Your task to perform on an android device: Is it going to rain tomorrow? Image 0: 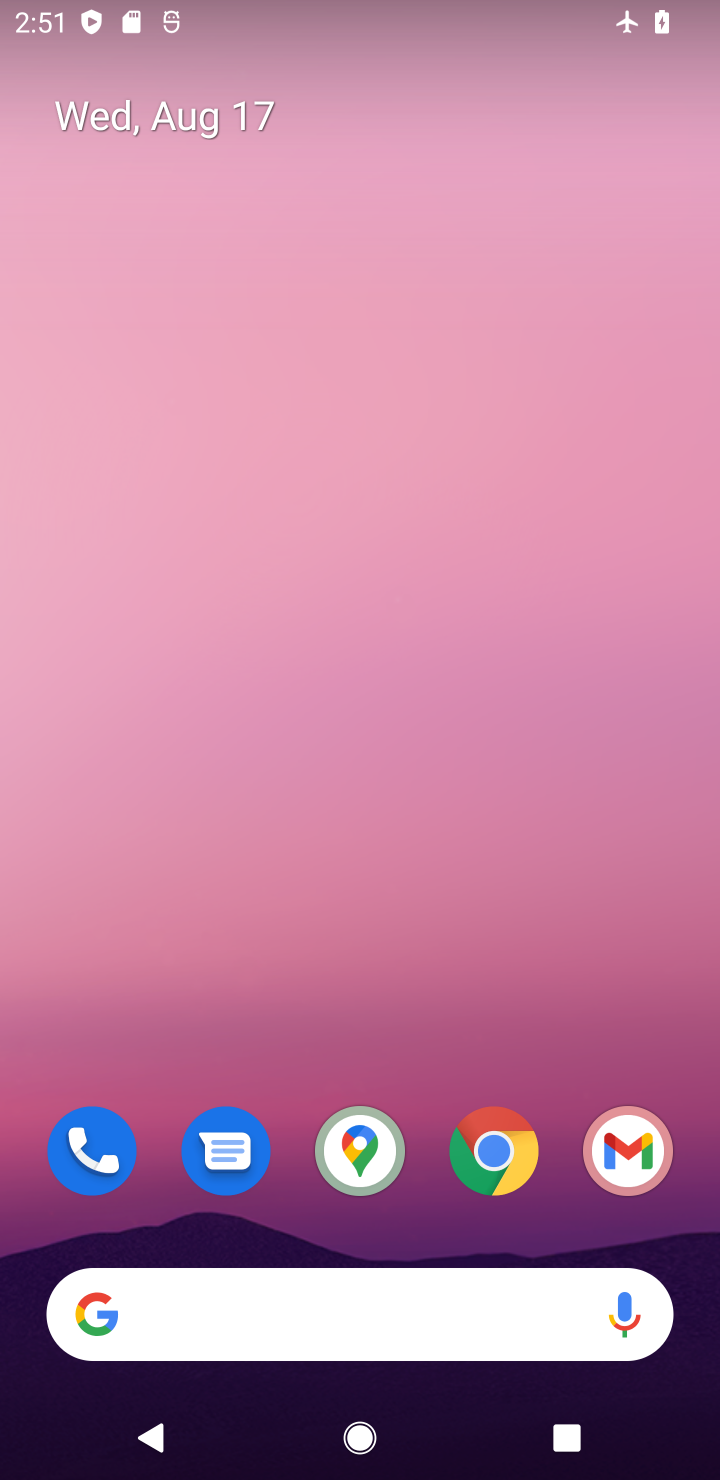
Step 0: drag from (288, 1031) to (345, 408)
Your task to perform on an android device: Is it going to rain tomorrow? Image 1: 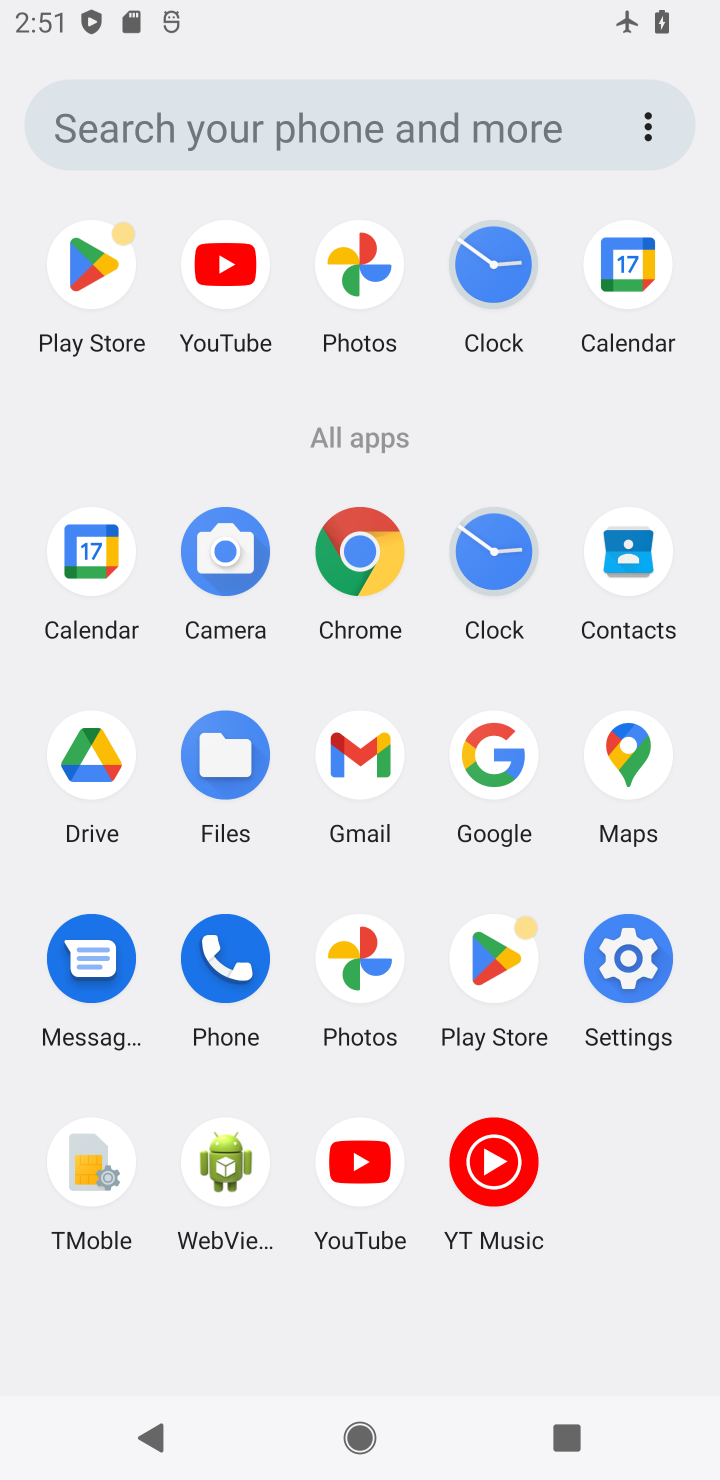
Step 1: click (353, 552)
Your task to perform on an android device: Is it going to rain tomorrow? Image 2: 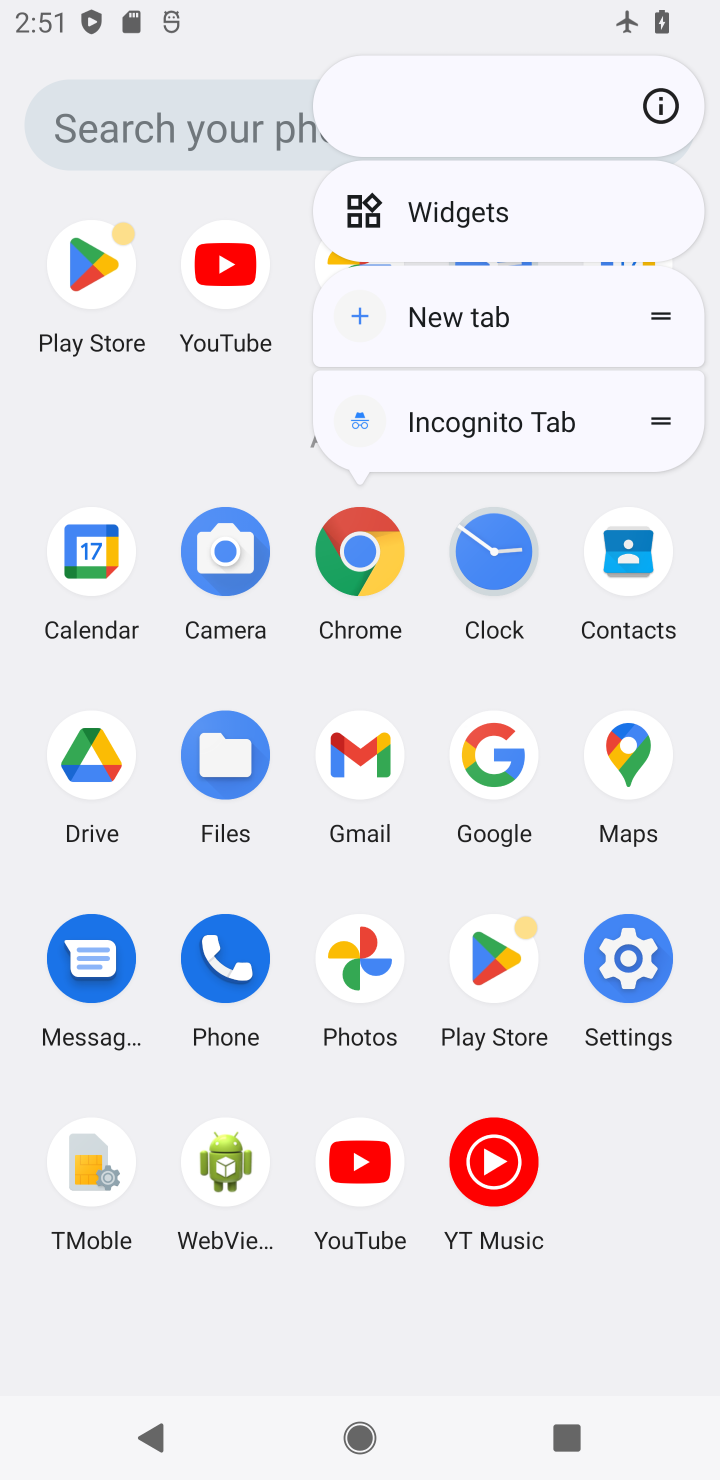
Step 2: click (353, 552)
Your task to perform on an android device: Is it going to rain tomorrow? Image 3: 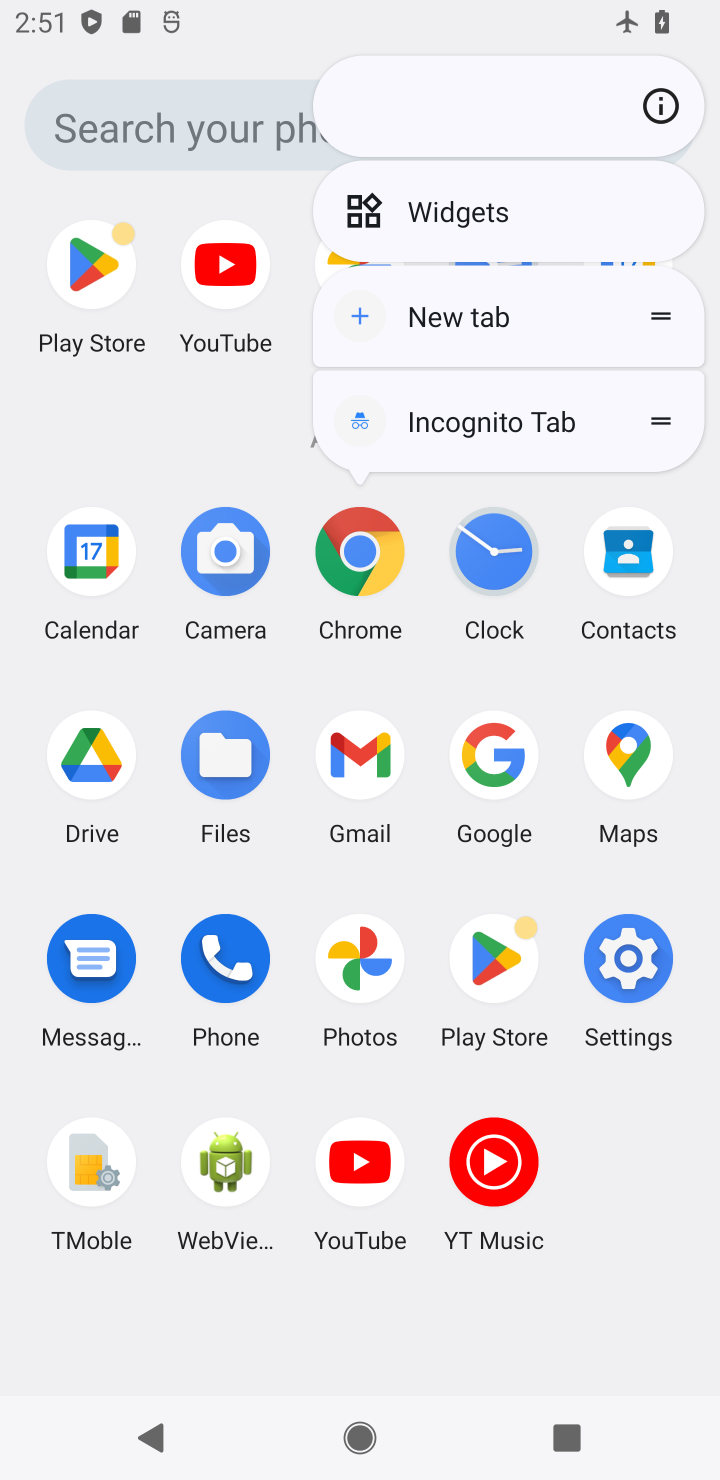
Step 3: click (353, 552)
Your task to perform on an android device: Is it going to rain tomorrow? Image 4: 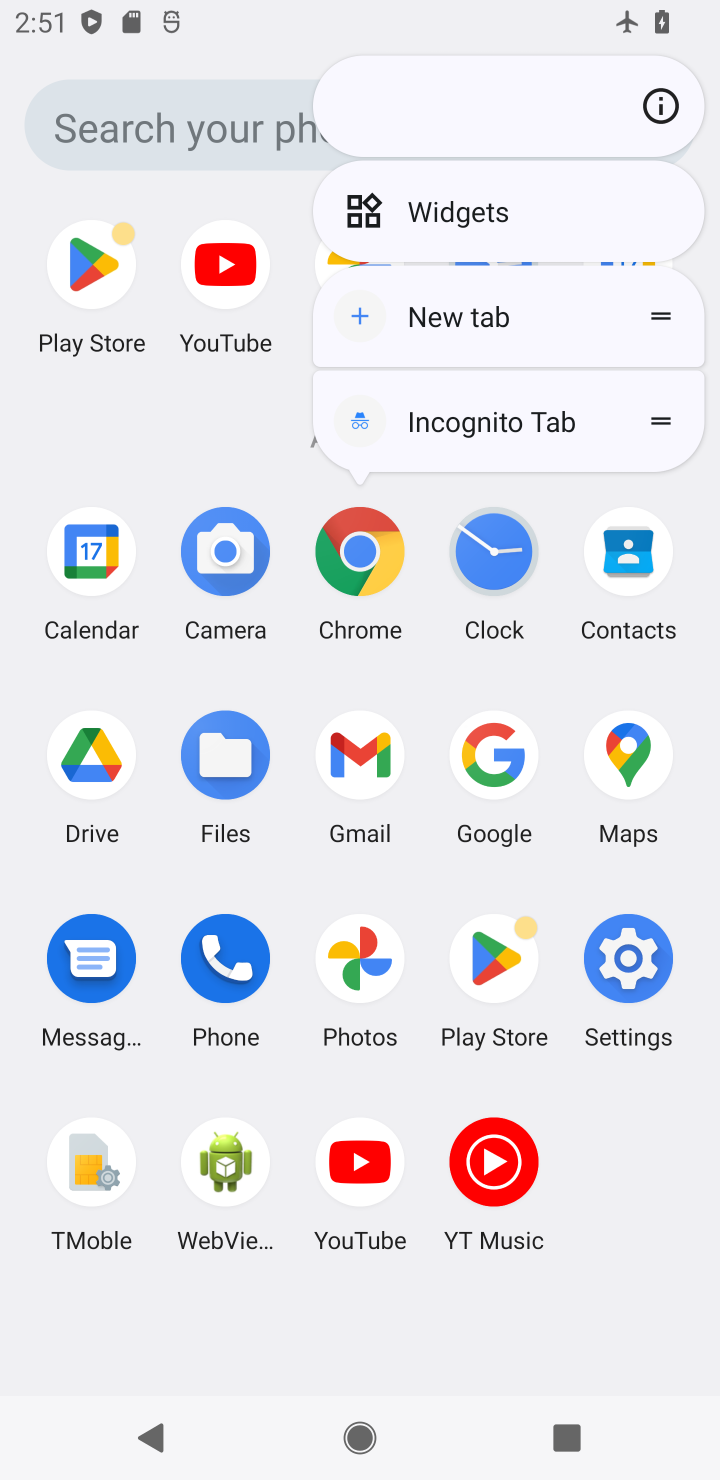
Step 4: click (357, 581)
Your task to perform on an android device: Is it going to rain tomorrow? Image 5: 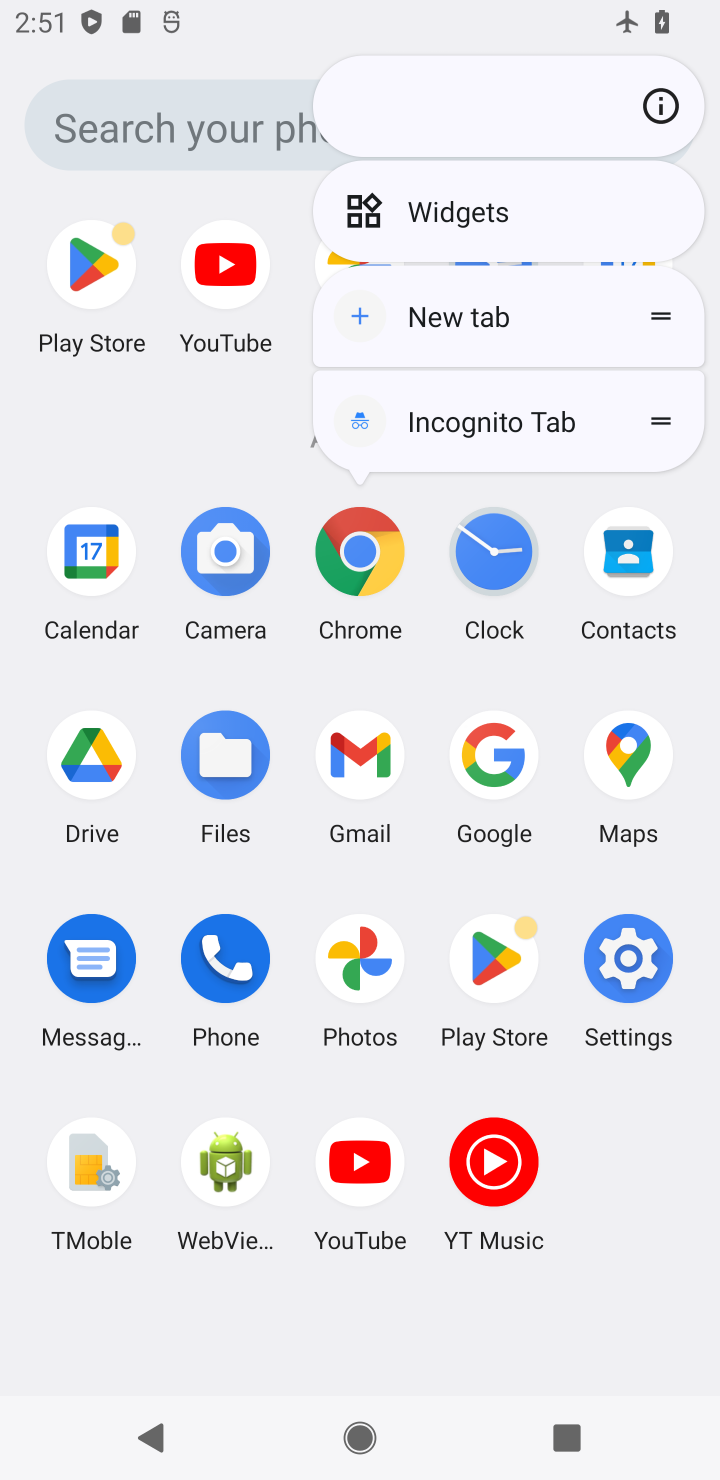
Step 5: click (357, 581)
Your task to perform on an android device: Is it going to rain tomorrow? Image 6: 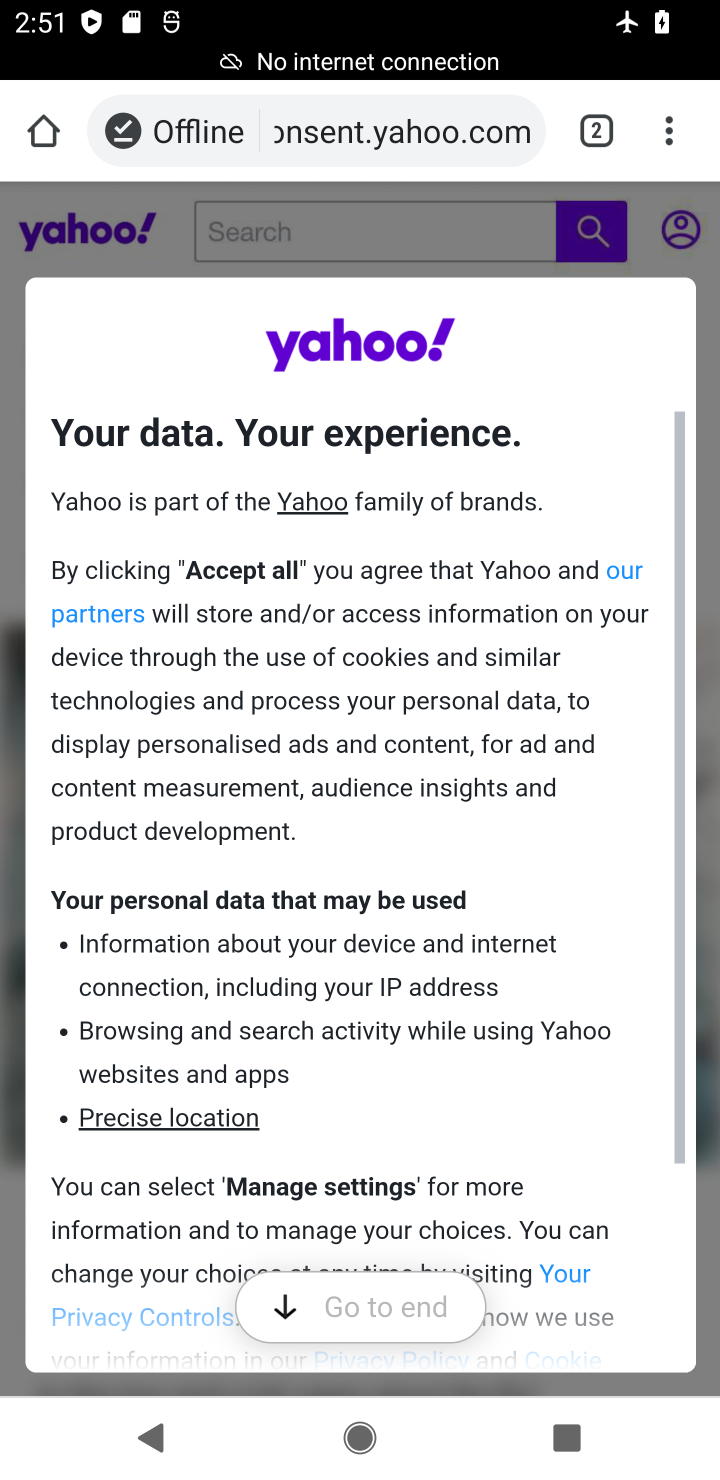
Step 6: click (596, 123)
Your task to perform on an android device: Is it going to rain tomorrow? Image 7: 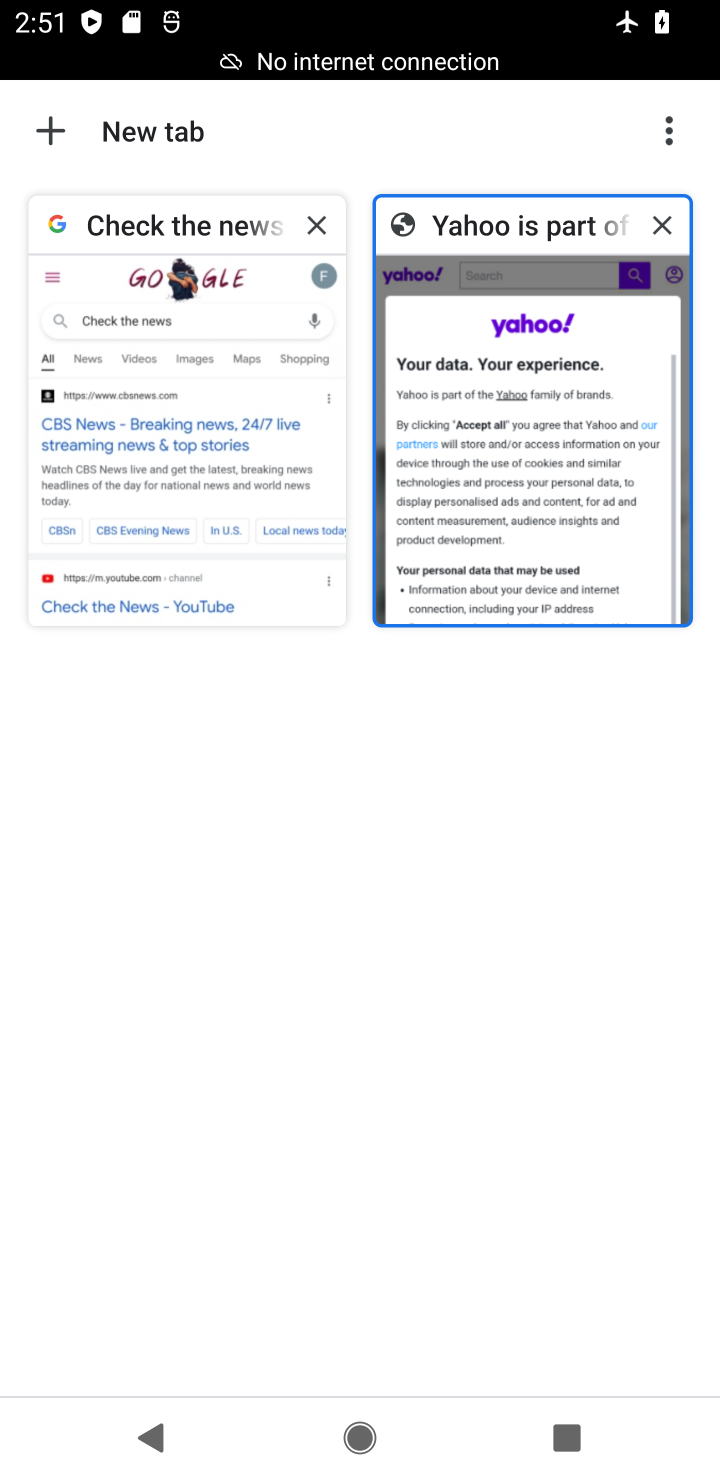
Step 7: click (56, 131)
Your task to perform on an android device: Is it going to rain tomorrow? Image 8: 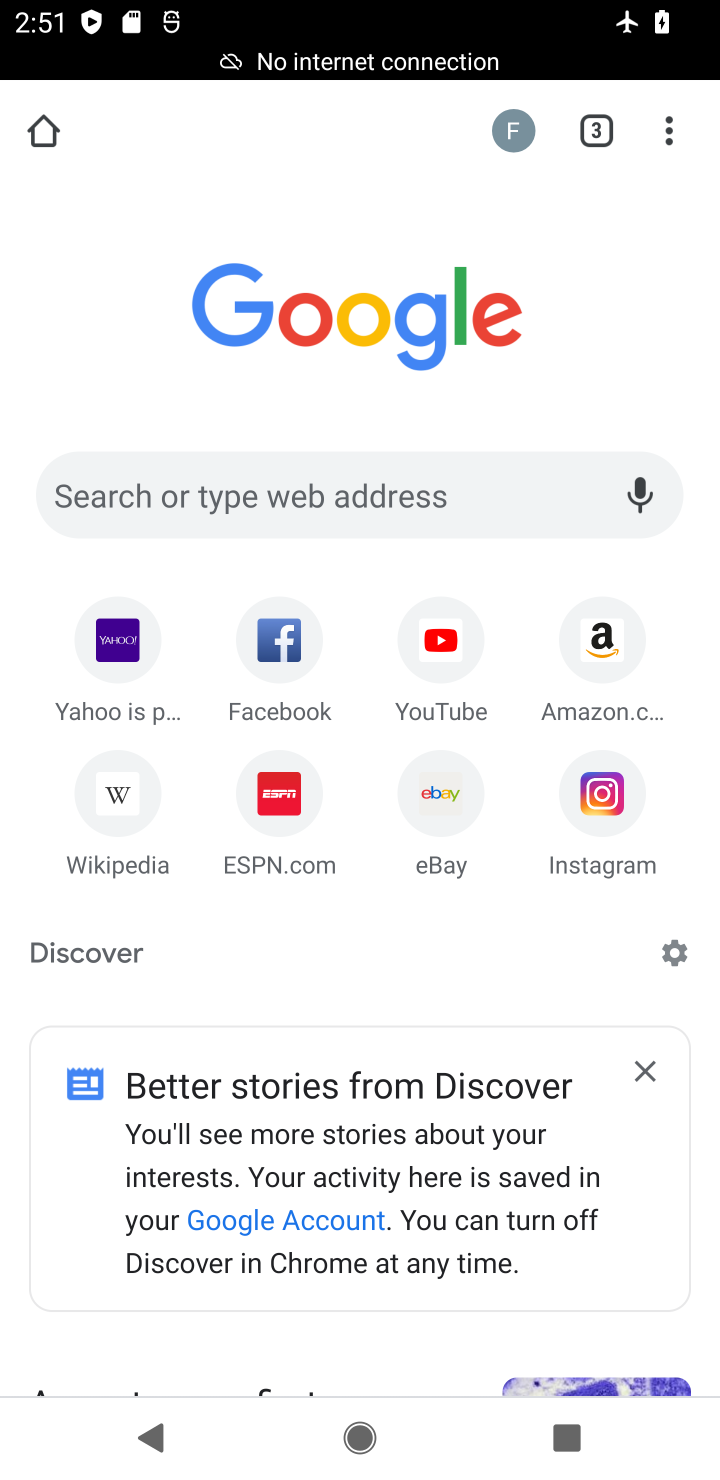
Step 8: click (456, 476)
Your task to perform on an android device: Is it going to rain tomorrow? Image 9: 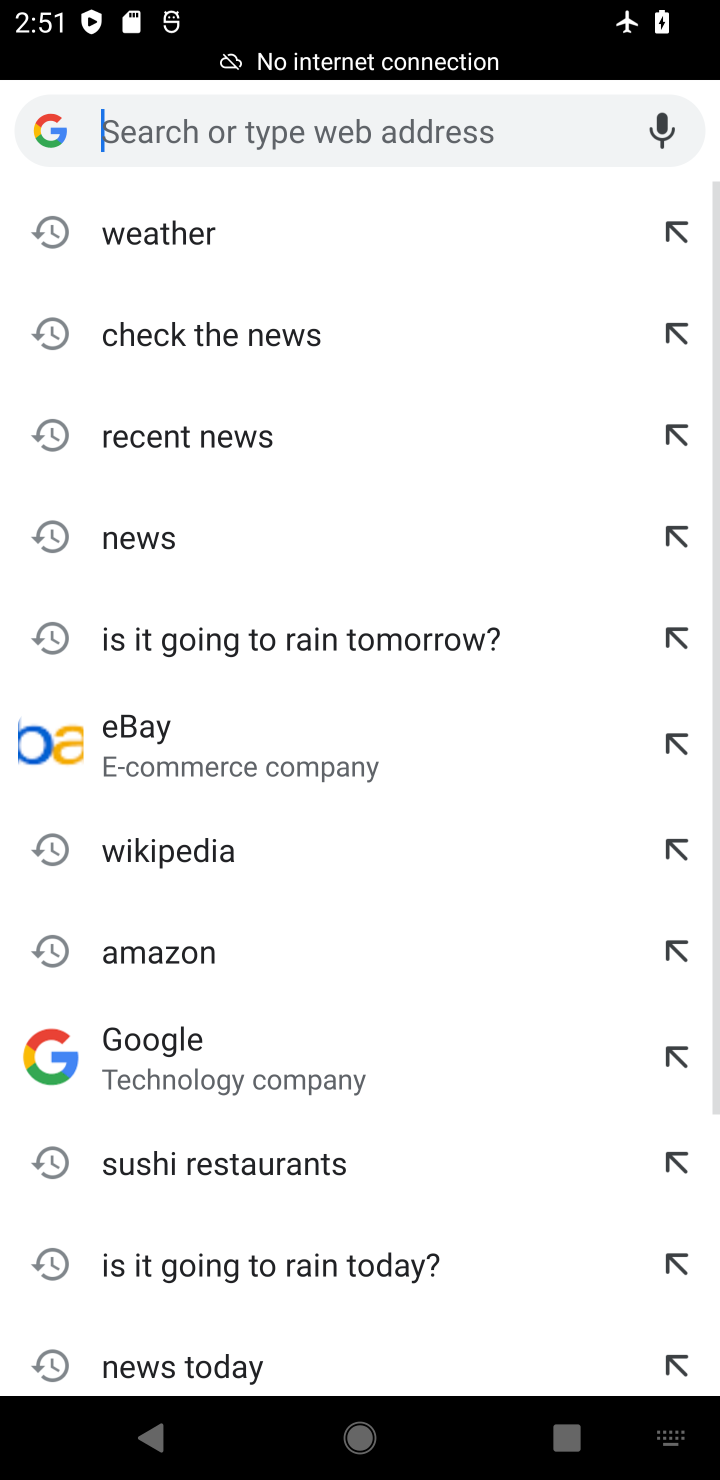
Step 9: type "Is it going to rain tomorrow? "
Your task to perform on an android device: Is it going to rain tomorrow? Image 10: 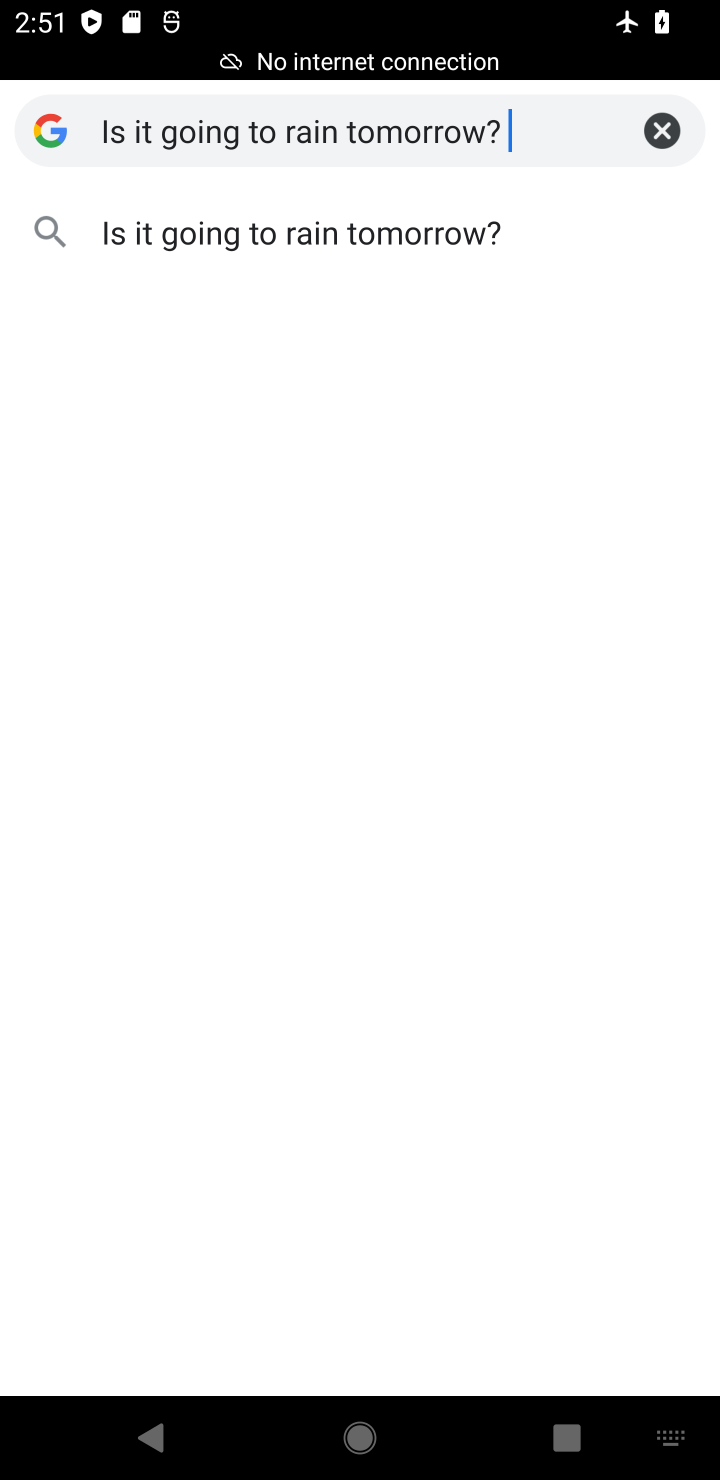
Step 10: click (338, 647)
Your task to perform on an android device: Is it going to rain tomorrow? Image 11: 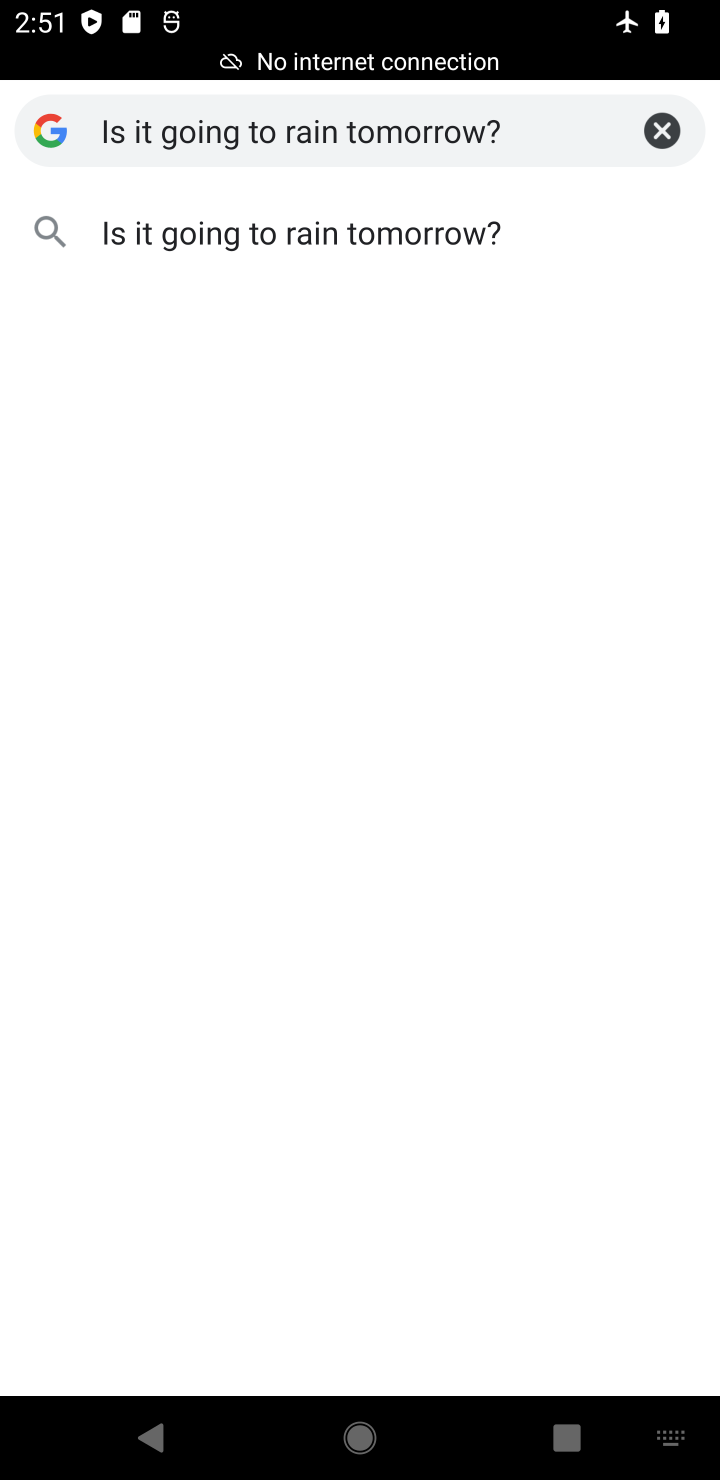
Step 11: click (361, 228)
Your task to perform on an android device: Is it going to rain tomorrow? Image 12: 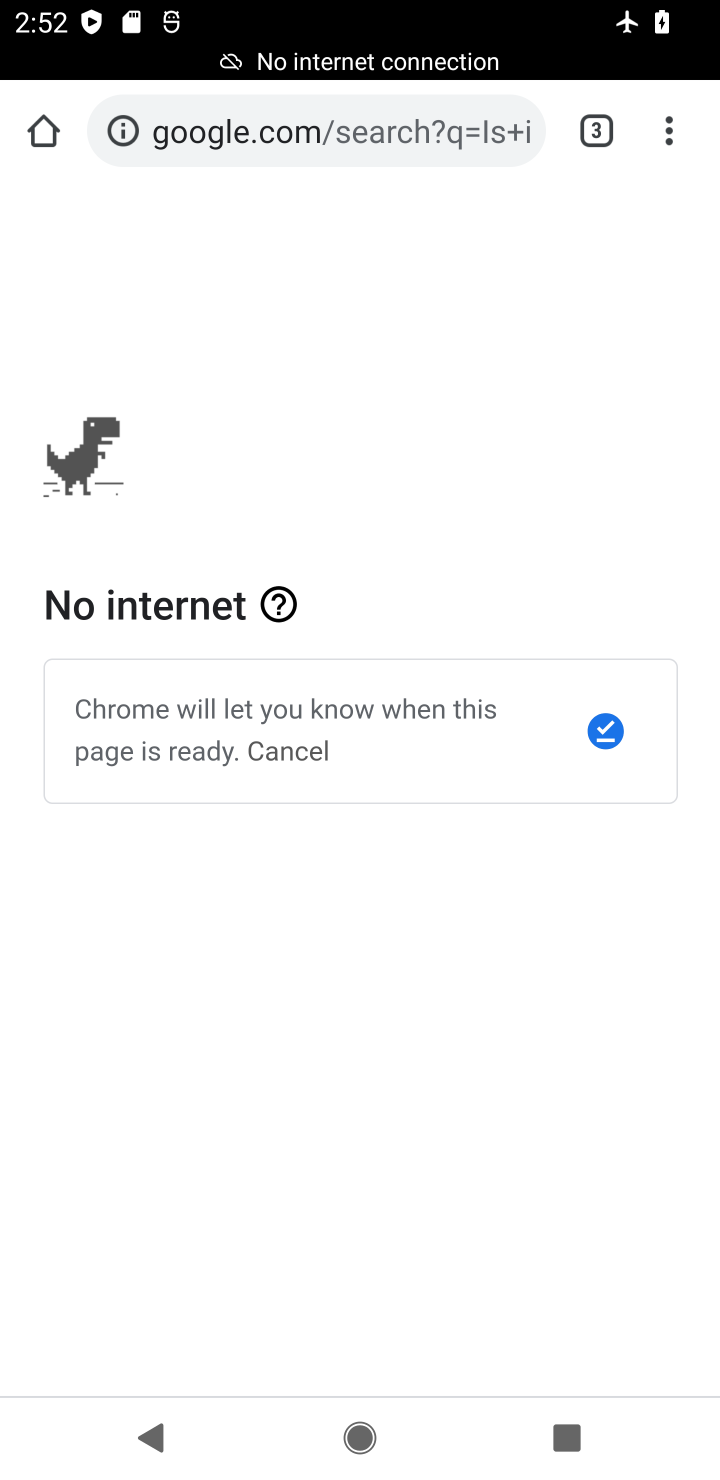
Step 12: task complete